Your task to perform on an android device: toggle data saver in the chrome app Image 0: 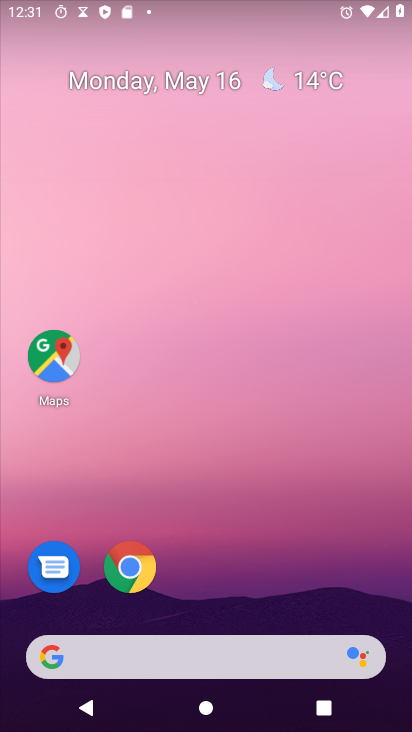
Step 0: drag from (255, 584) to (241, 79)
Your task to perform on an android device: toggle data saver in the chrome app Image 1: 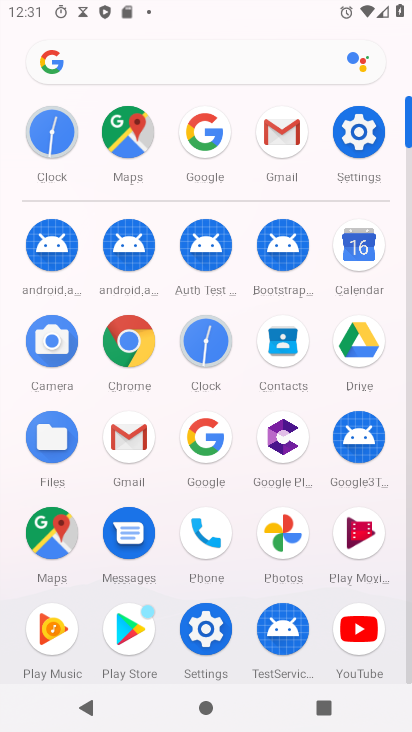
Step 1: click (132, 333)
Your task to perform on an android device: toggle data saver in the chrome app Image 2: 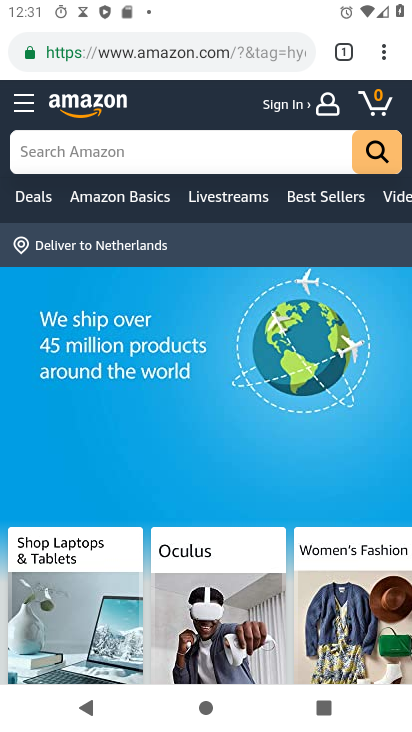
Step 2: click (386, 57)
Your task to perform on an android device: toggle data saver in the chrome app Image 3: 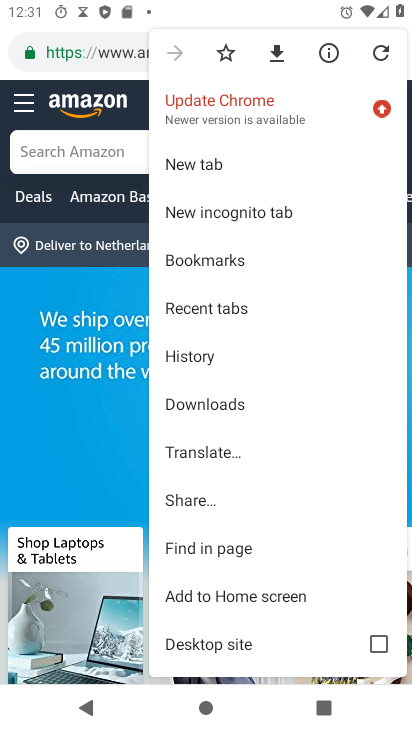
Step 3: drag from (226, 611) to (292, 254)
Your task to perform on an android device: toggle data saver in the chrome app Image 4: 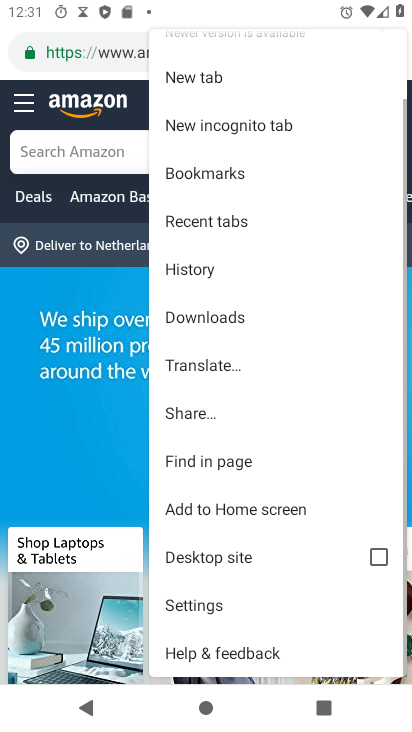
Step 4: click (218, 603)
Your task to perform on an android device: toggle data saver in the chrome app Image 5: 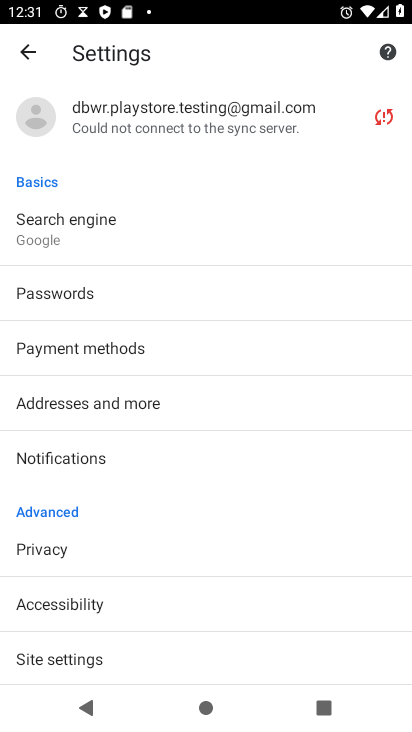
Step 5: drag from (156, 634) to (161, 284)
Your task to perform on an android device: toggle data saver in the chrome app Image 6: 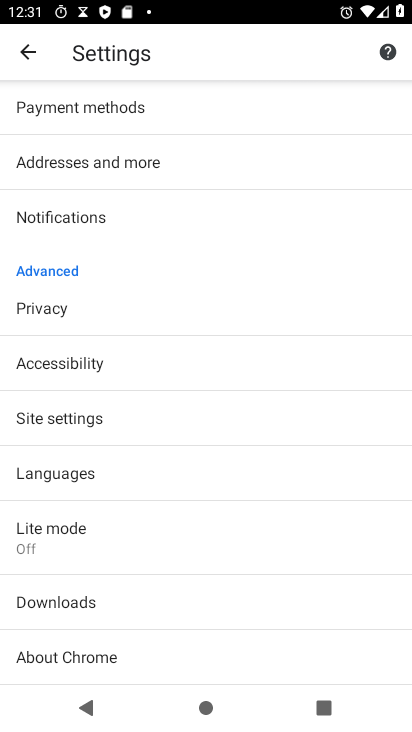
Step 6: click (77, 535)
Your task to perform on an android device: toggle data saver in the chrome app Image 7: 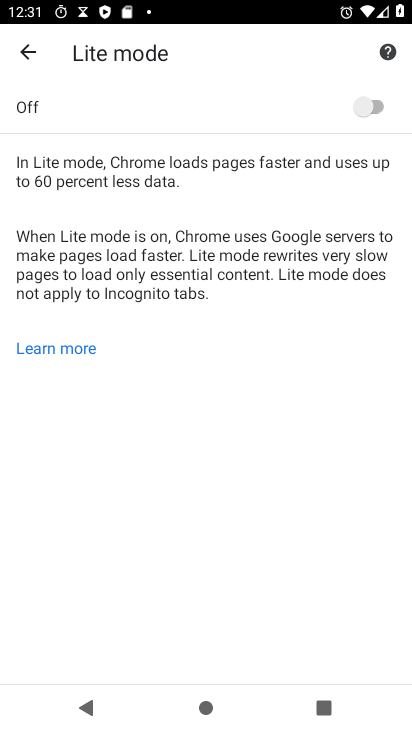
Step 7: click (364, 98)
Your task to perform on an android device: toggle data saver in the chrome app Image 8: 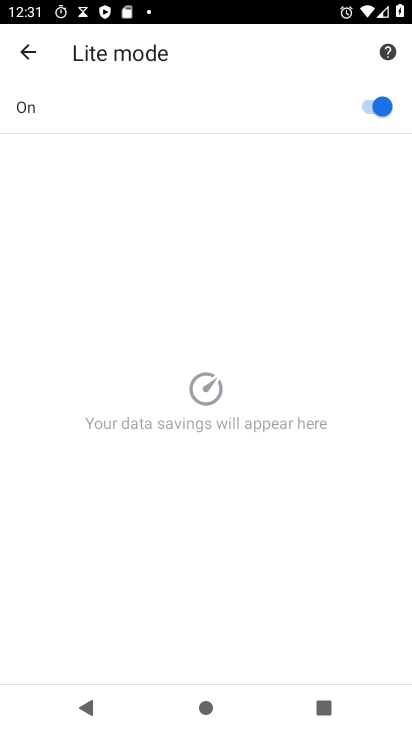
Step 8: task complete